Your task to perform on an android device: turn on priority inbox in the gmail app Image 0: 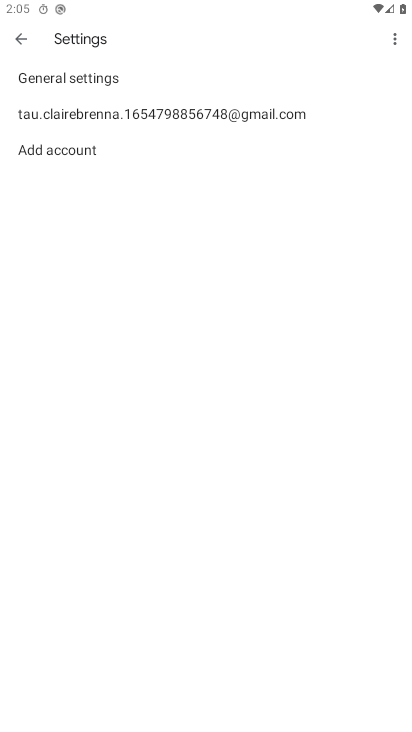
Step 0: press home button
Your task to perform on an android device: turn on priority inbox in the gmail app Image 1: 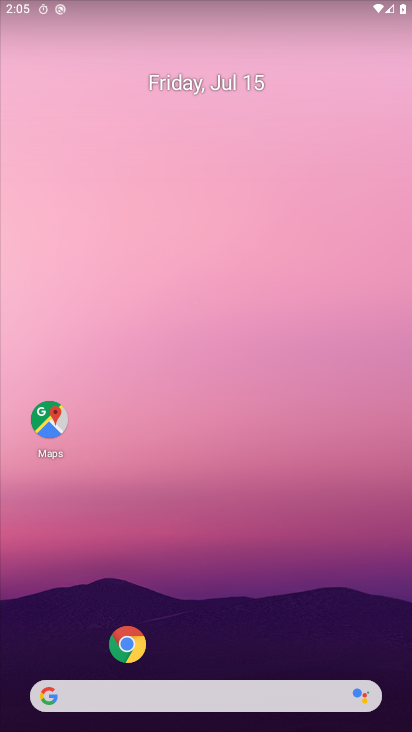
Step 1: drag from (22, 686) to (205, 271)
Your task to perform on an android device: turn on priority inbox in the gmail app Image 2: 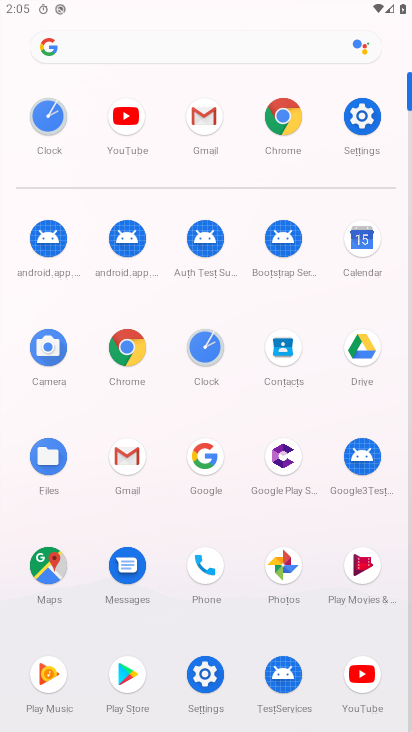
Step 2: click (121, 454)
Your task to perform on an android device: turn on priority inbox in the gmail app Image 3: 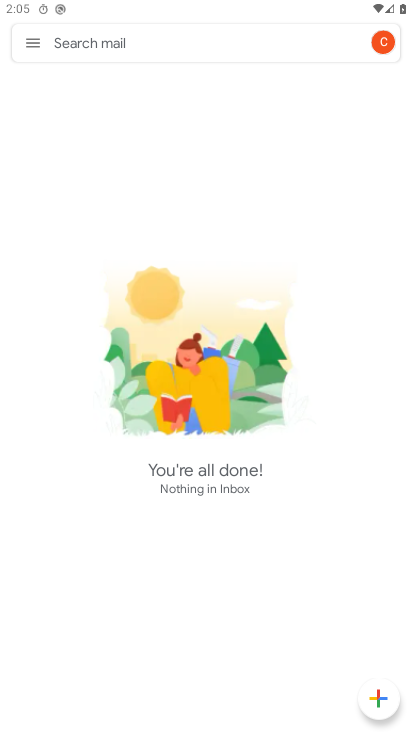
Step 3: click (30, 36)
Your task to perform on an android device: turn on priority inbox in the gmail app Image 4: 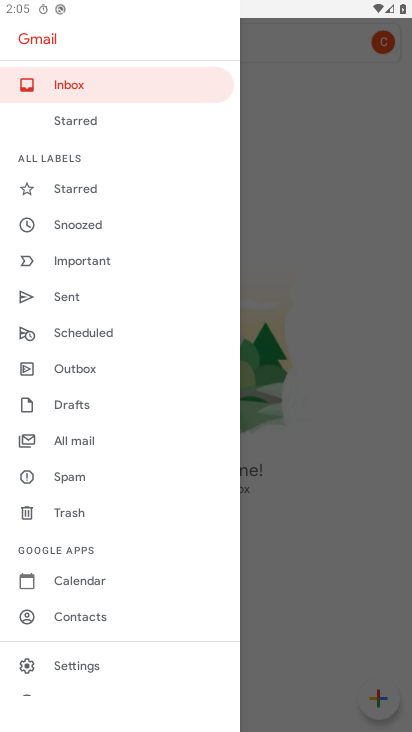
Step 4: click (96, 657)
Your task to perform on an android device: turn on priority inbox in the gmail app Image 5: 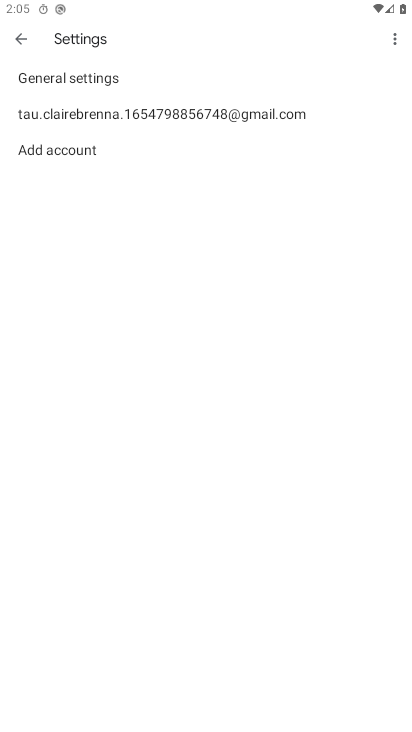
Step 5: click (76, 118)
Your task to perform on an android device: turn on priority inbox in the gmail app Image 6: 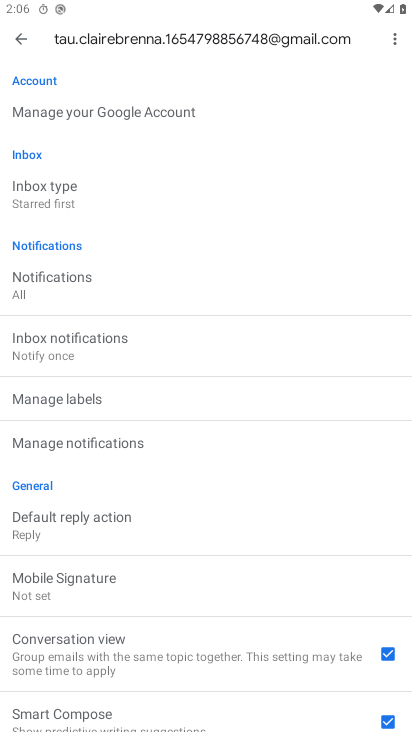
Step 6: click (88, 193)
Your task to perform on an android device: turn on priority inbox in the gmail app Image 7: 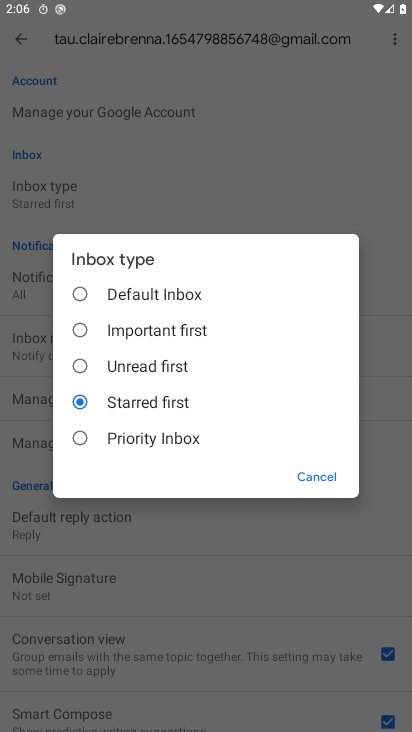
Step 7: click (113, 440)
Your task to perform on an android device: turn on priority inbox in the gmail app Image 8: 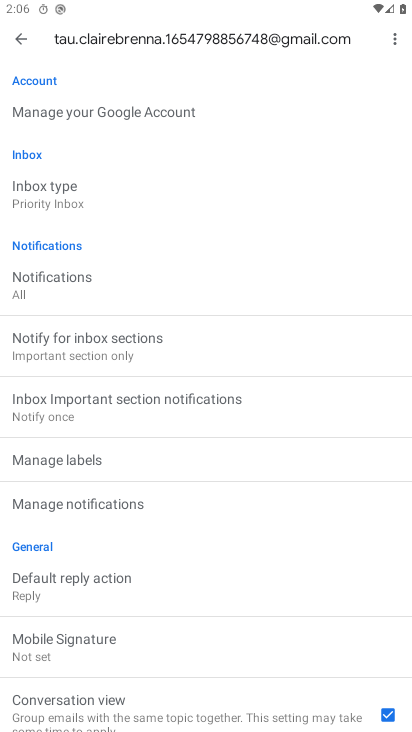
Step 8: task complete